Your task to perform on an android device: Go to display settings Image 0: 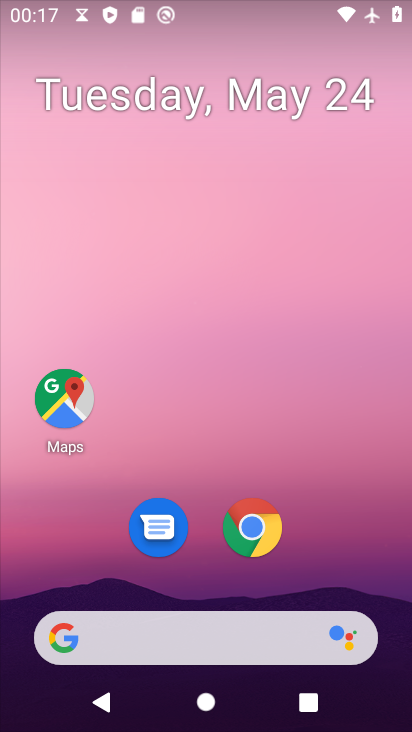
Step 0: press home button
Your task to perform on an android device: Go to display settings Image 1: 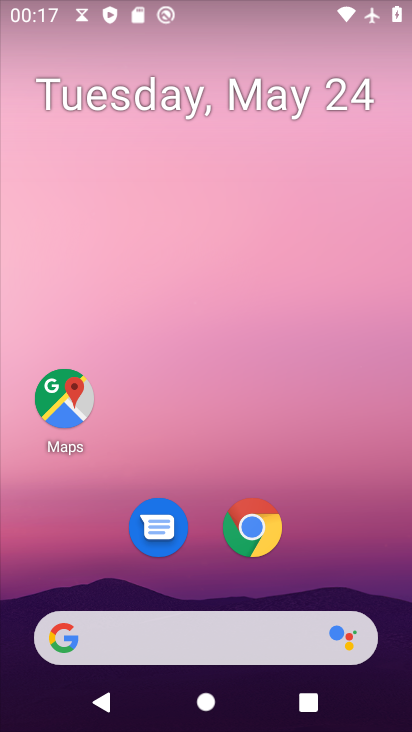
Step 1: drag from (185, 616) to (384, 8)
Your task to perform on an android device: Go to display settings Image 2: 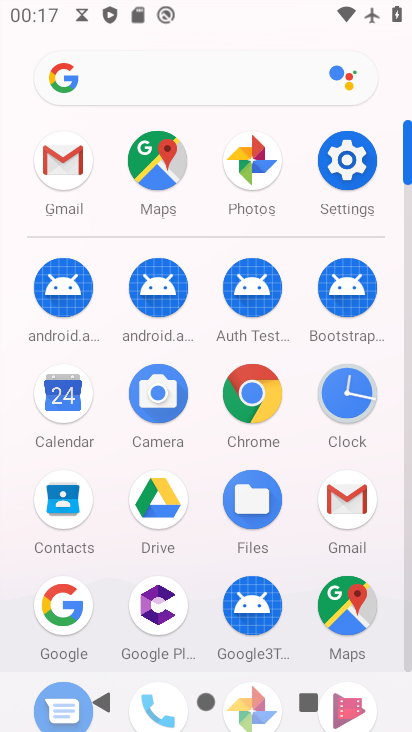
Step 2: click (342, 175)
Your task to perform on an android device: Go to display settings Image 3: 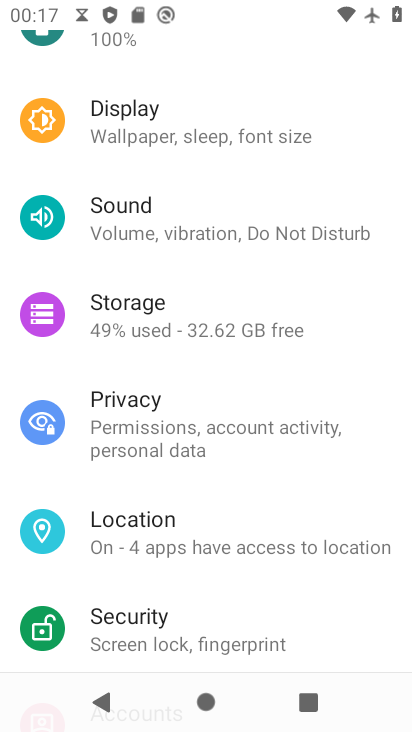
Step 3: click (156, 119)
Your task to perform on an android device: Go to display settings Image 4: 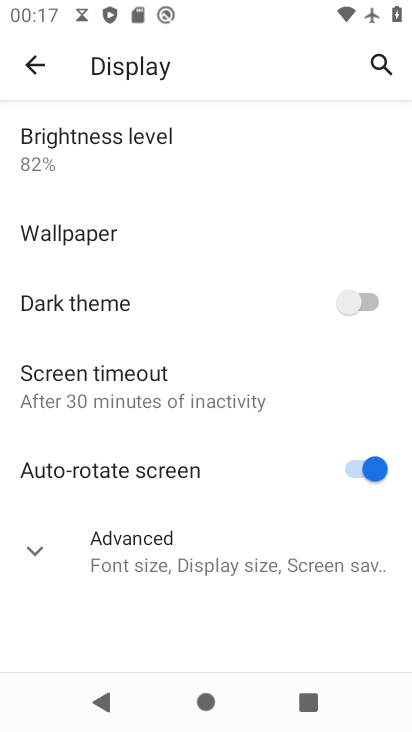
Step 4: task complete